Your task to perform on an android device: change your default location settings in chrome Image 0: 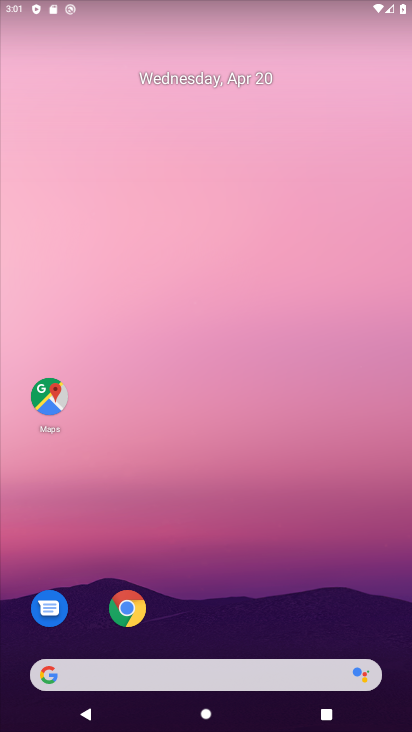
Step 0: click (143, 606)
Your task to perform on an android device: change your default location settings in chrome Image 1: 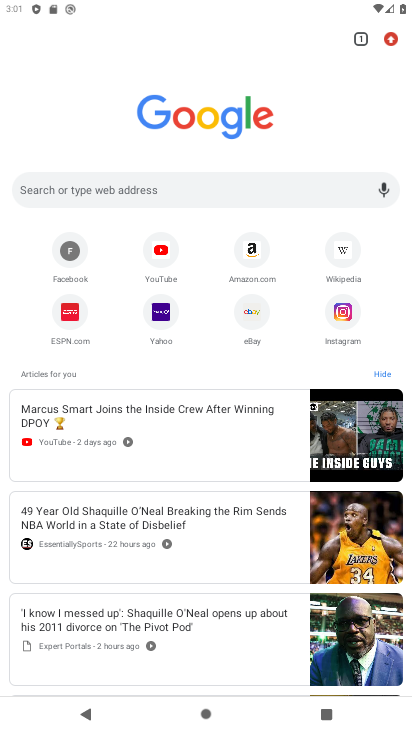
Step 1: drag from (388, 37) to (271, 371)
Your task to perform on an android device: change your default location settings in chrome Image 2: 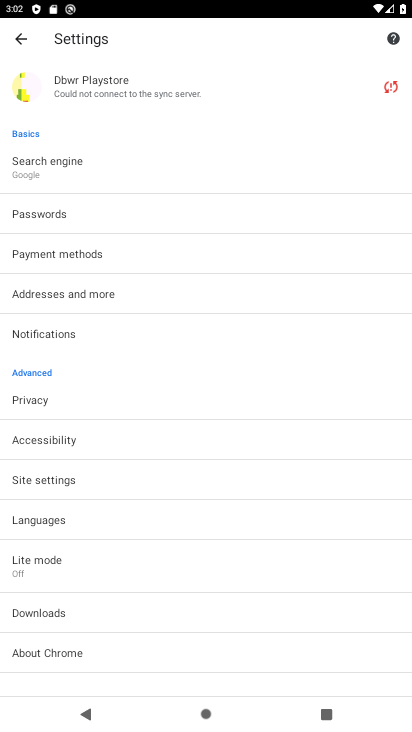
Step 2: click (47, 153)
Your task to perform on an android device: change your default location settings in chrome Image 3: 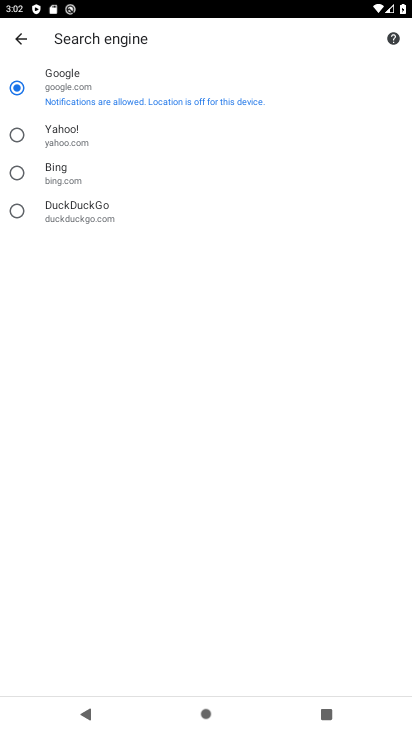
Step 3: click (13, 85)
Your task to perform on an android device: change your default location settings in chrome Image 4: 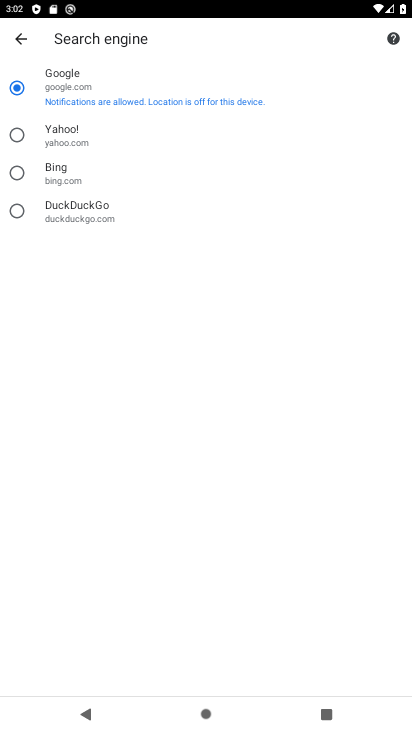
Step 4: task complete